Your task to perform on an android device: toggle improve location accuracy Image 0: 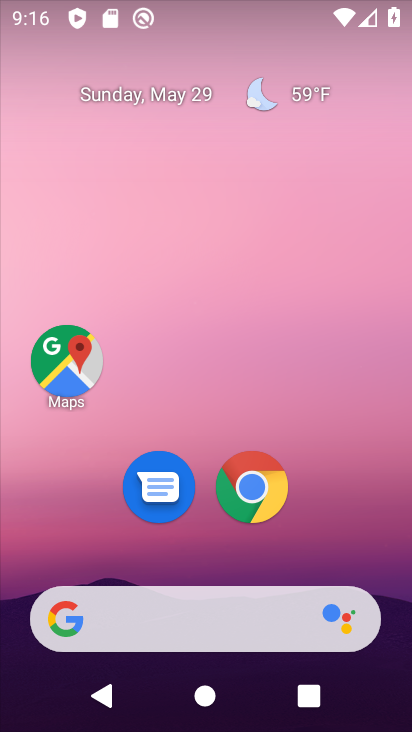
Step 0: drag from (347, 539) to (212, 124)
Your task to perform on an android device: toggle improve location accuracy Image 1: 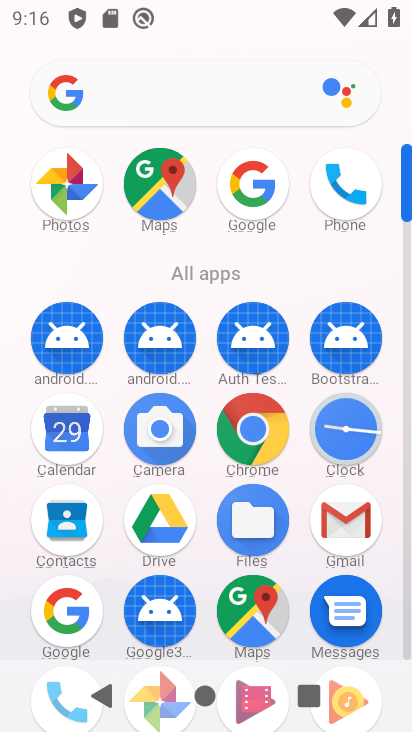
Step 1: drag from (207, 491) to (250, 288)
Your task to perform on an android device: toggle improve location accuracy Image 2: 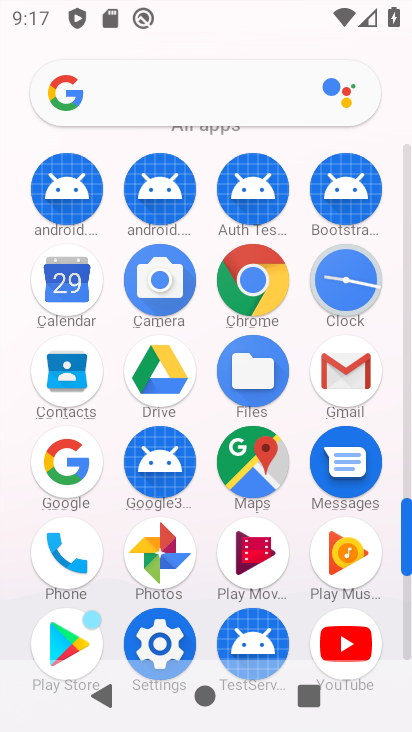
Step 2: click (158, 646)
Your task to perform on an android device: toggle improve location accuracy Image 3: 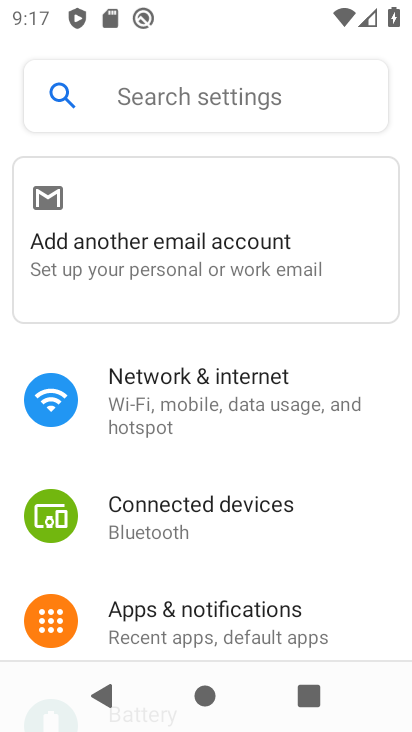
Step 3: drag from (181, 539) to (245, 439)
Your task to perform on an android device: toggle improve location accuracy Image 4: 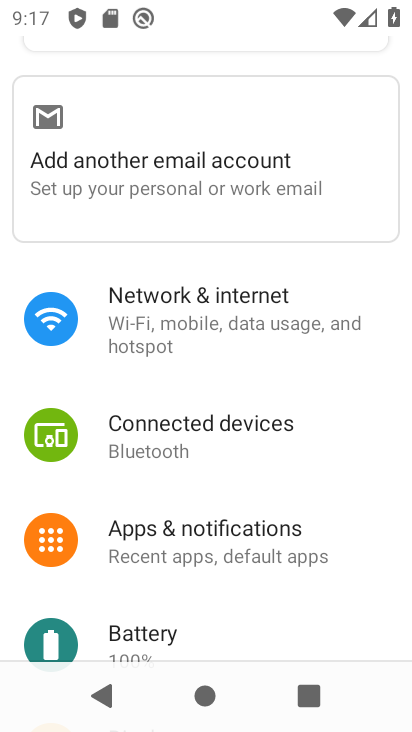
Step 4: drag from (204, 584) to (269, 473)
Your task to perform on an android device: toggle improve location accuracy Image 5: 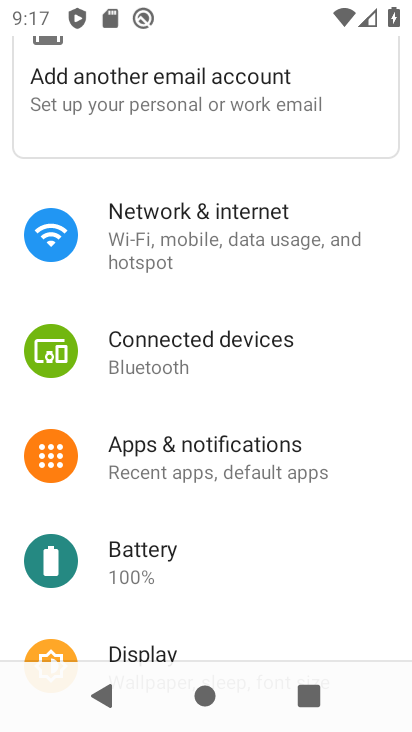
Step 5: drag from (198, 621) to (291, 469)
Your task to perform on an android device: toggle improve location accuracy Image 6: 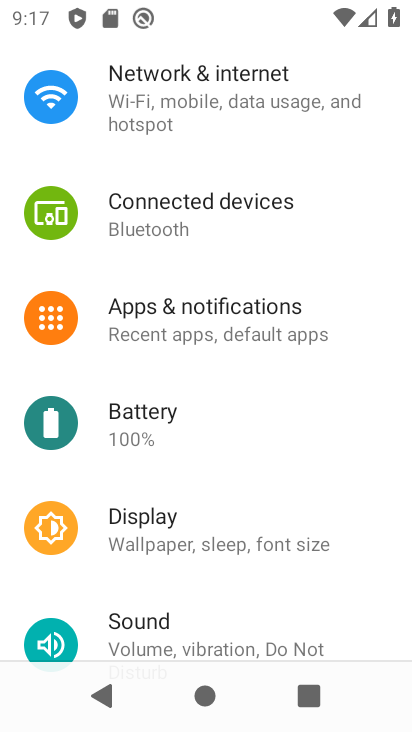
Step 6: drag from (188, 599) to (256, 461)
Your task to perform on an android device: toggle improve location accuracy Image 7: 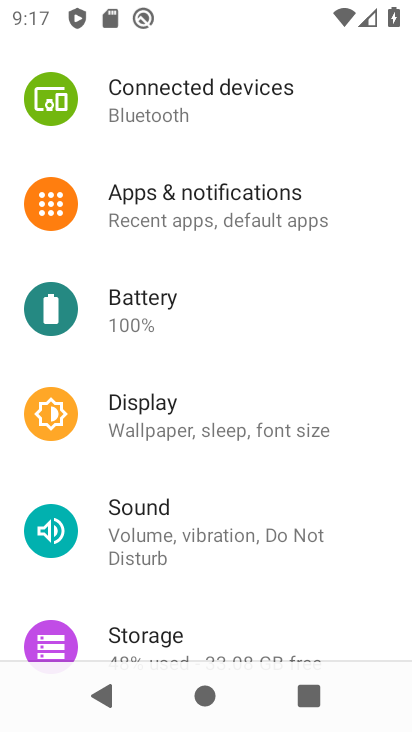
Step 7: drag from (186, 605) to (259, 466)
Your task to perform on an android device: toggle improve location accuracy Image 8: 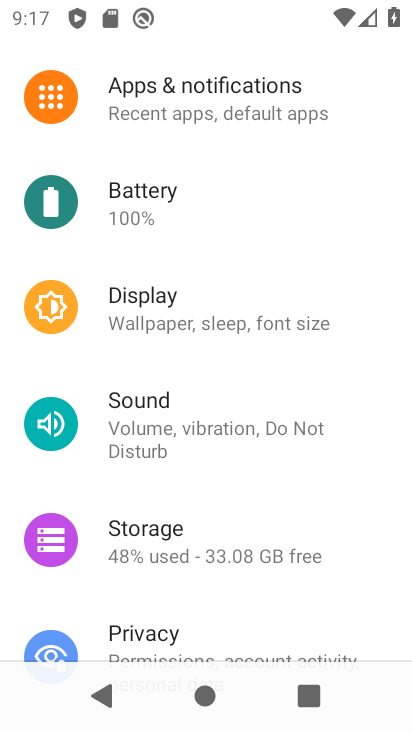
Step 8: drag from (210, 609) to (239, 469)
Your task to perform on an android device: toggle improve location accuracy Image 9: 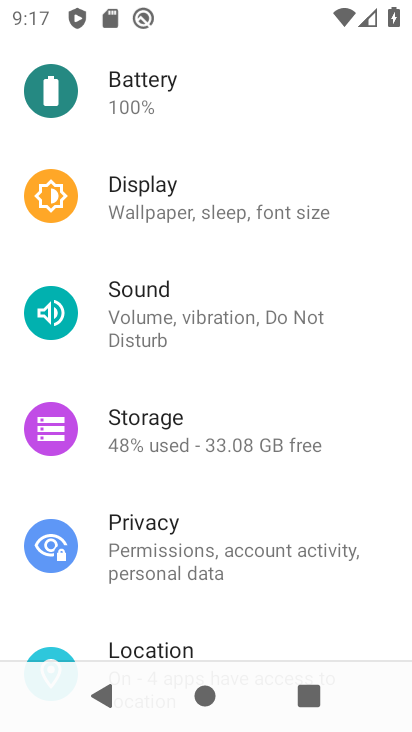
Step 9: drag from (176, 614) to (275, 474)
Your task to perform on an android device: toggle improve location accuracy Image 10: 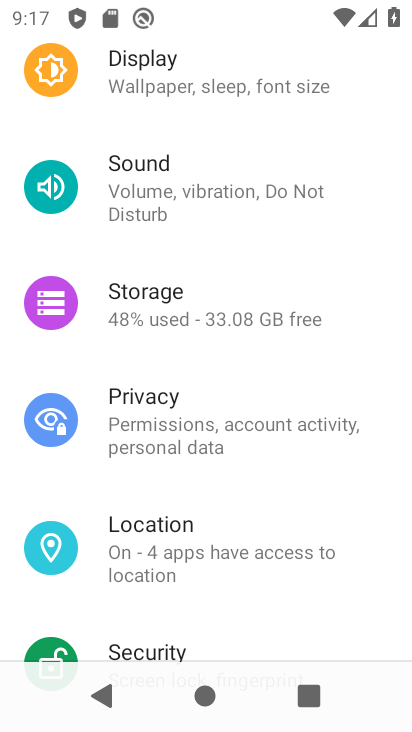
Step 10: click (186, 540)
Your task to perform on an android device: toggle improve location accuracy Image 11: 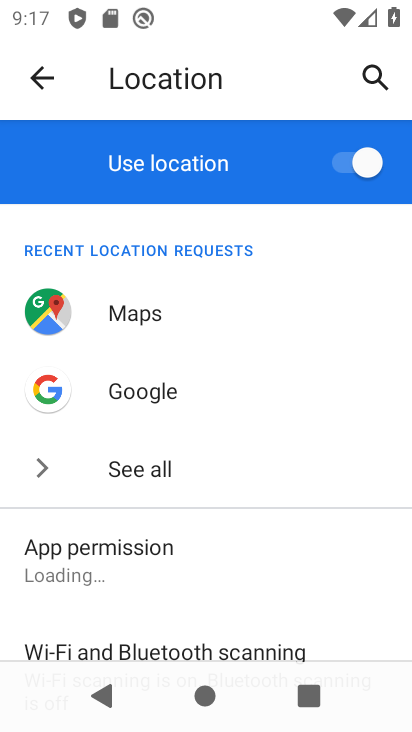
Step 11: drag from (179, 613) to (269, 473)
Your task to perform on an android device: toggle improve location accuracy Image 12: 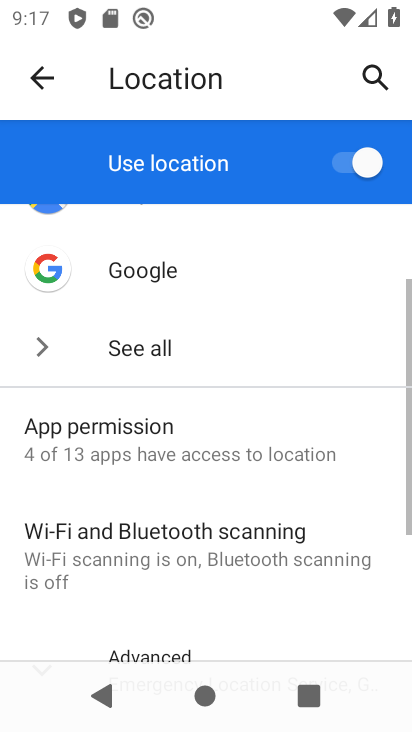
Step 12: drag from (181, 611) to (287, 452)
Your task to perform on an android device: toggle improve location accuracy Image 13: 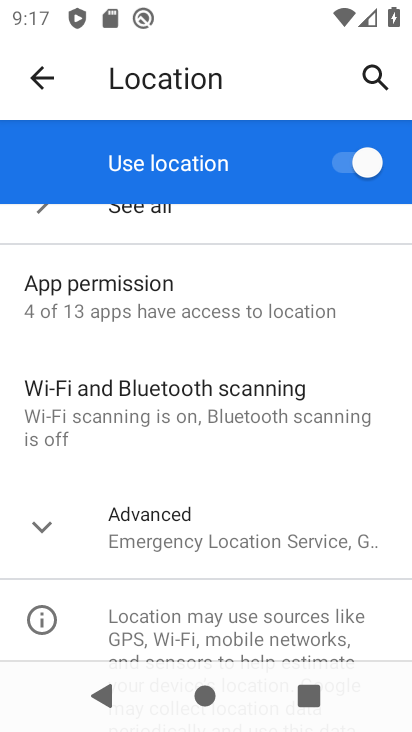
Step 13: click (250, 532)
Your task to perform on an android device: toggle improve location accuracy Image 14: 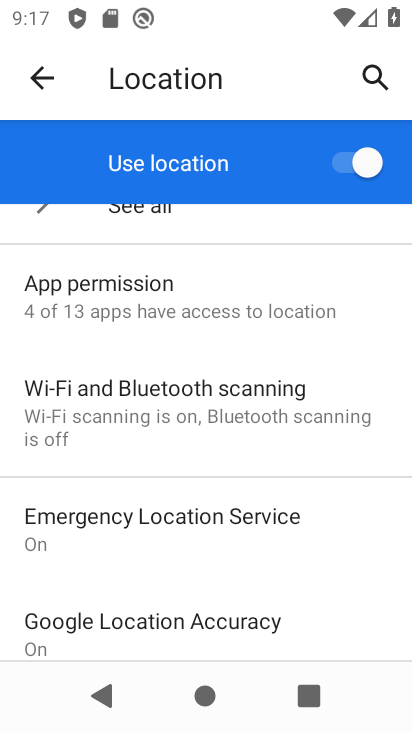
Step 14: drag from (175, 601) to (262, 485)
Your task to perform on an android device: toggle improve location accuracy Image 15: 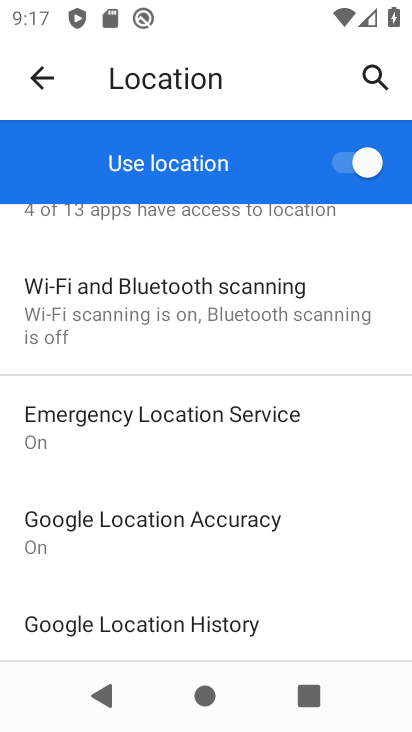
Step 15: click (283, 525)
Your task to perform on an android device: toggle improve location accuracy Image 16: 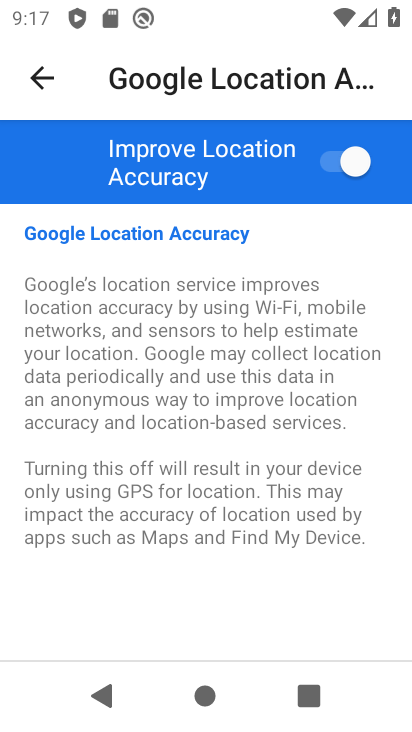
Step 16: click (359, 149)
Your task to perform on an android device: toggle improve location accuracy Image 17: 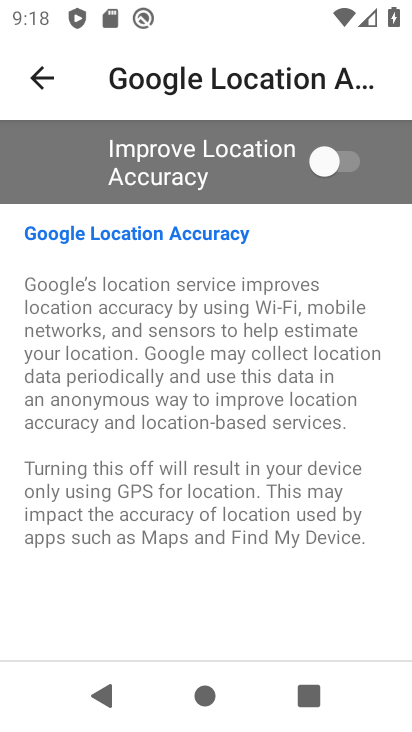
Step 17: task complete